Your task to perform on an android device: What's on the menu at Cheesecake Factory? Image 0: 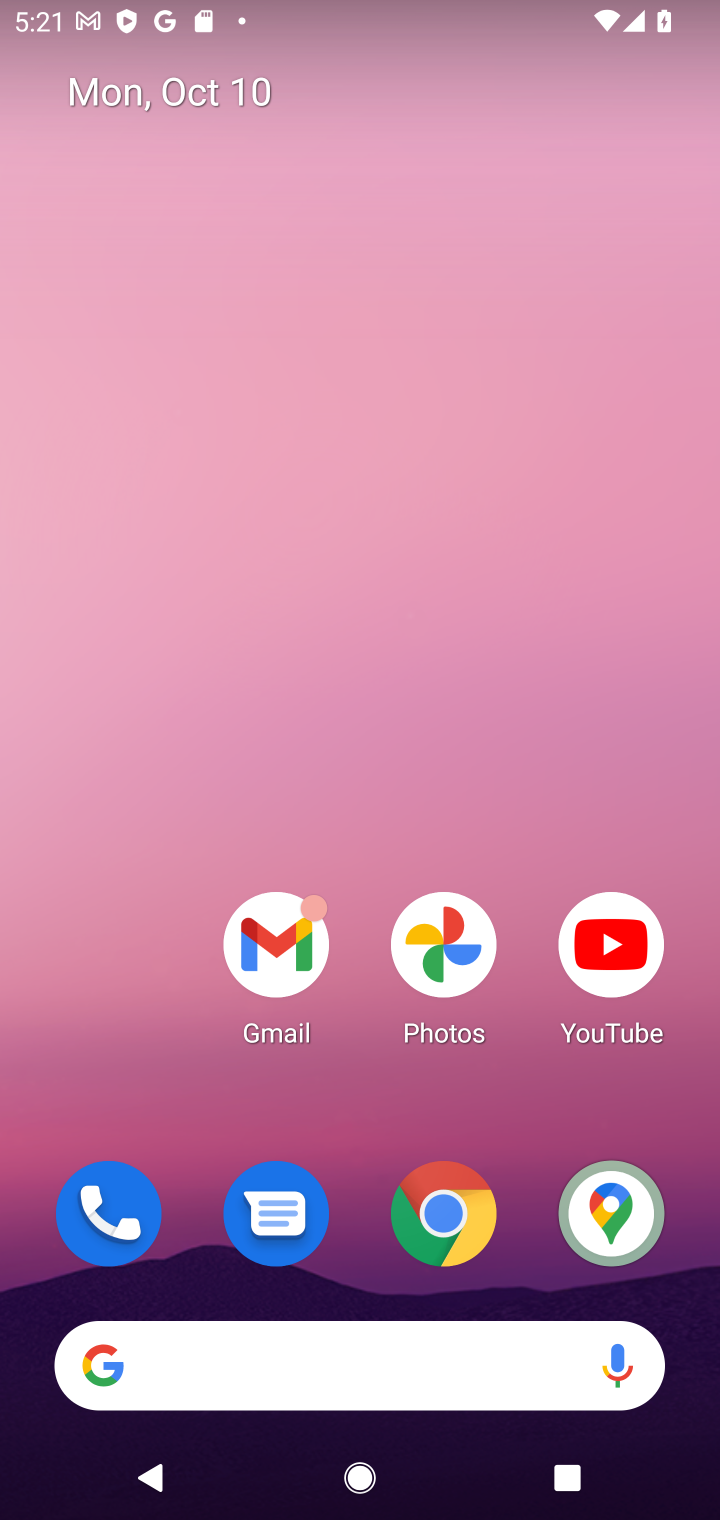
Step 0: click (340, 1373)
Your task to perform on an android device: What's on the menu at Cheesecake Factory? Image 1: 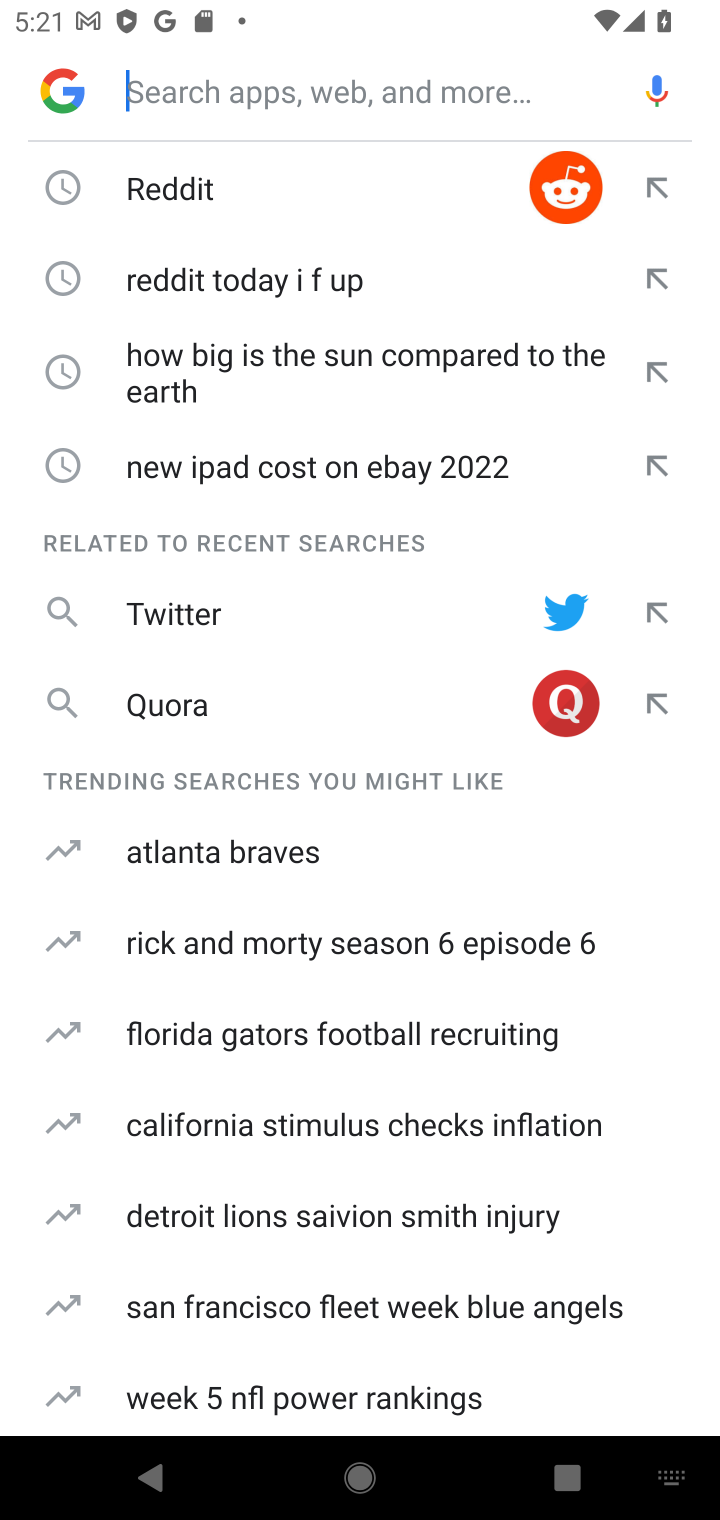
Step 1: type "menu at Cheesecake Factory"
Your task to perform on an android device: What's on the menu at Cheesecake Factory? Image 2: 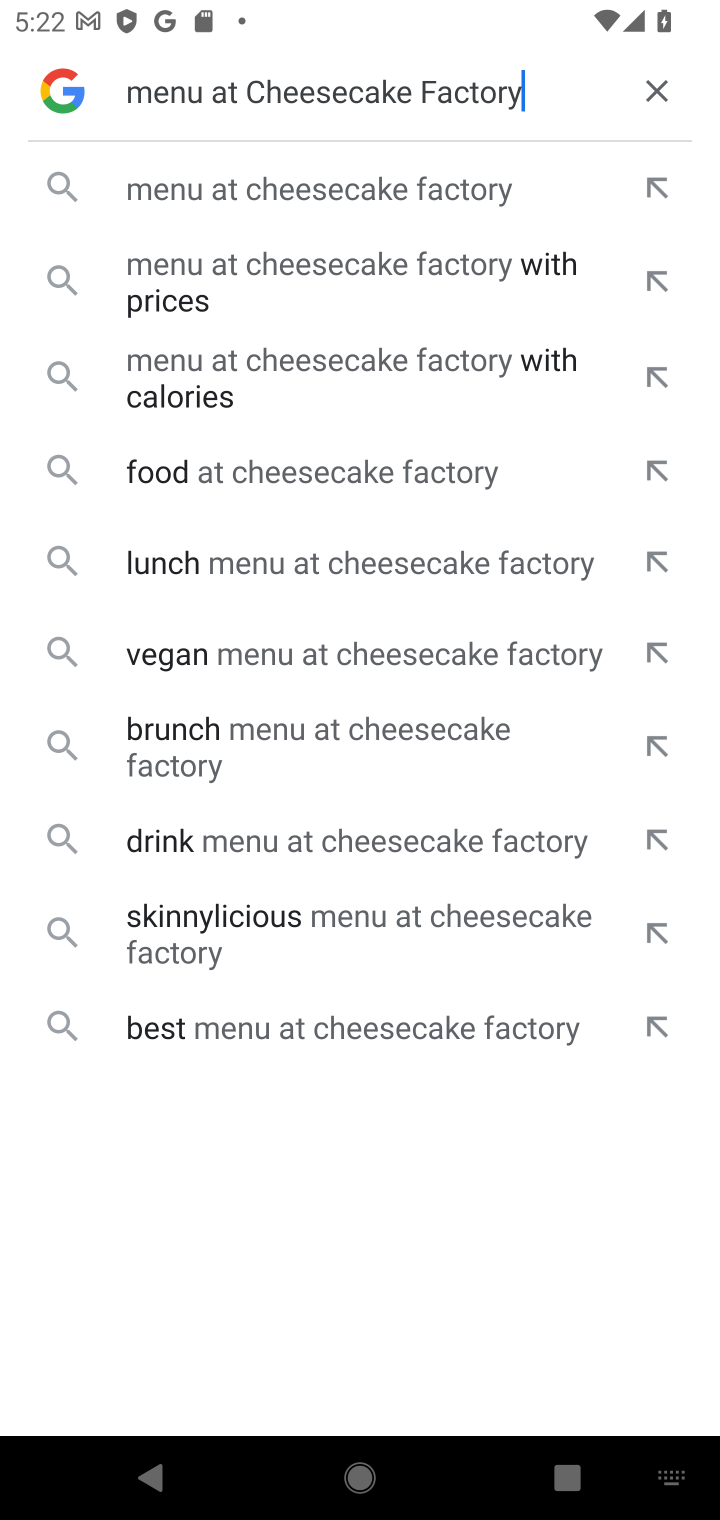
Step 2: click (484, 189)
Your task to perform on an android device: What's on the menu at Cheesecake Factory? Image 3: 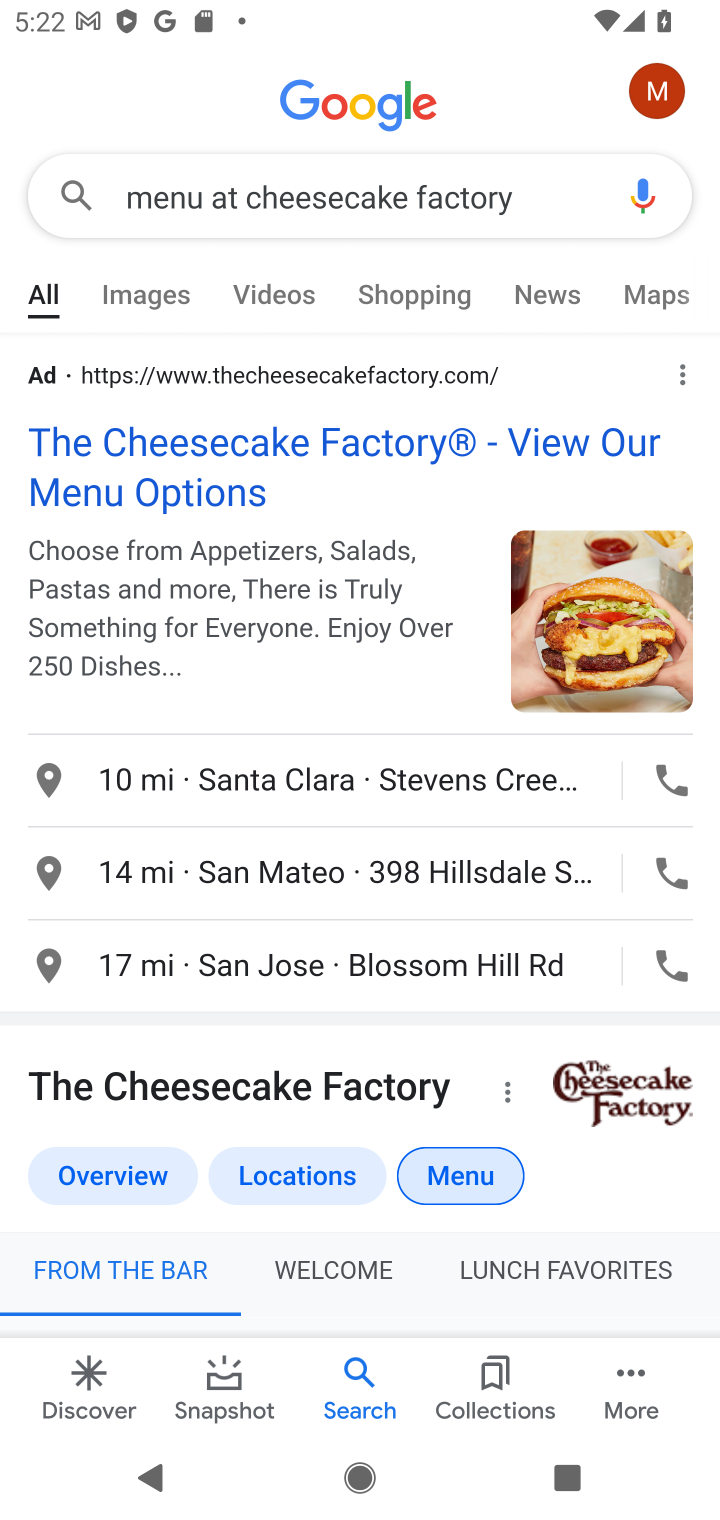
Step 3: drag from (393, 1040) to (412, 508)
Your task to perform on an android device: What's on the menu at Cheesecake Factory? Image 4: 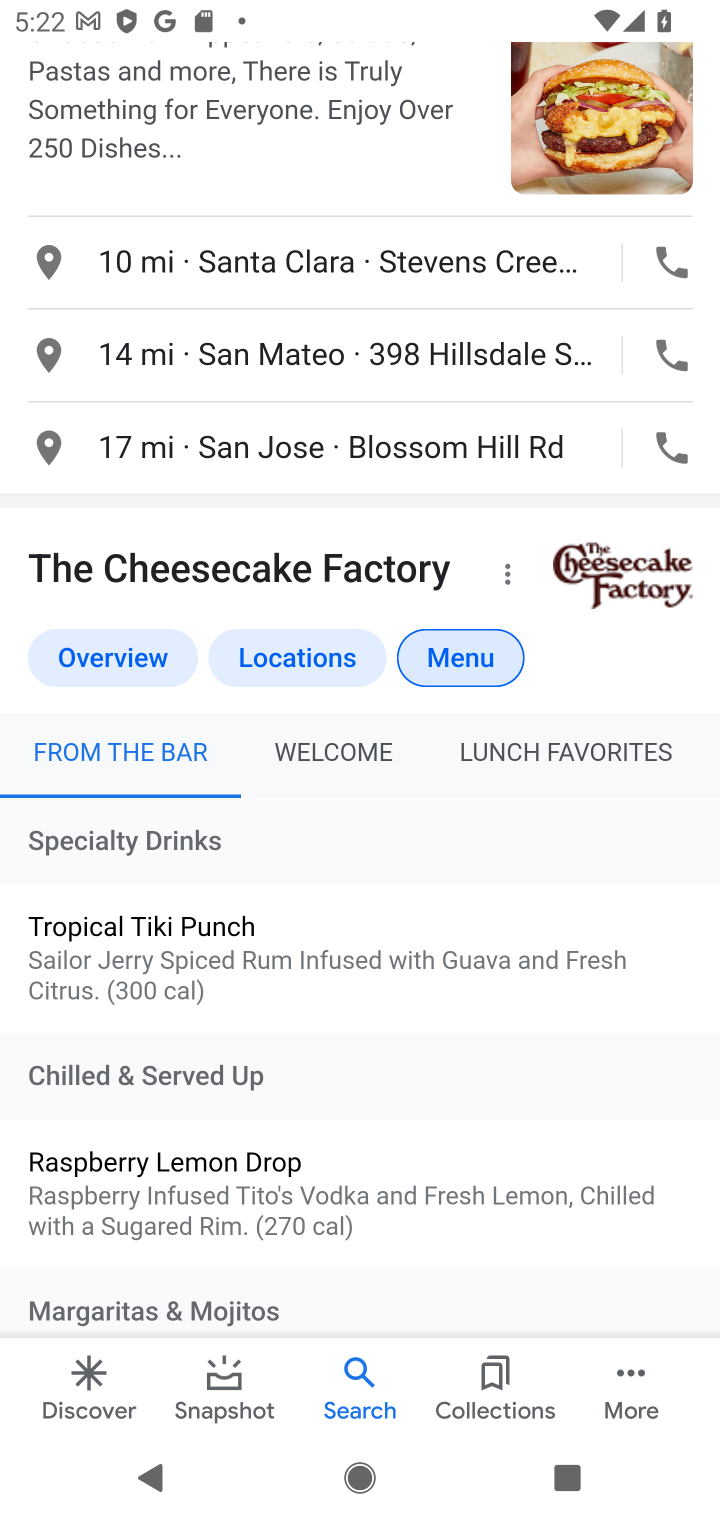
Step 4: drag from (354, 1027) to (414, 431)
Your task to perform on an android device: What's on the menu at Cheesecake Factory? Image 5: 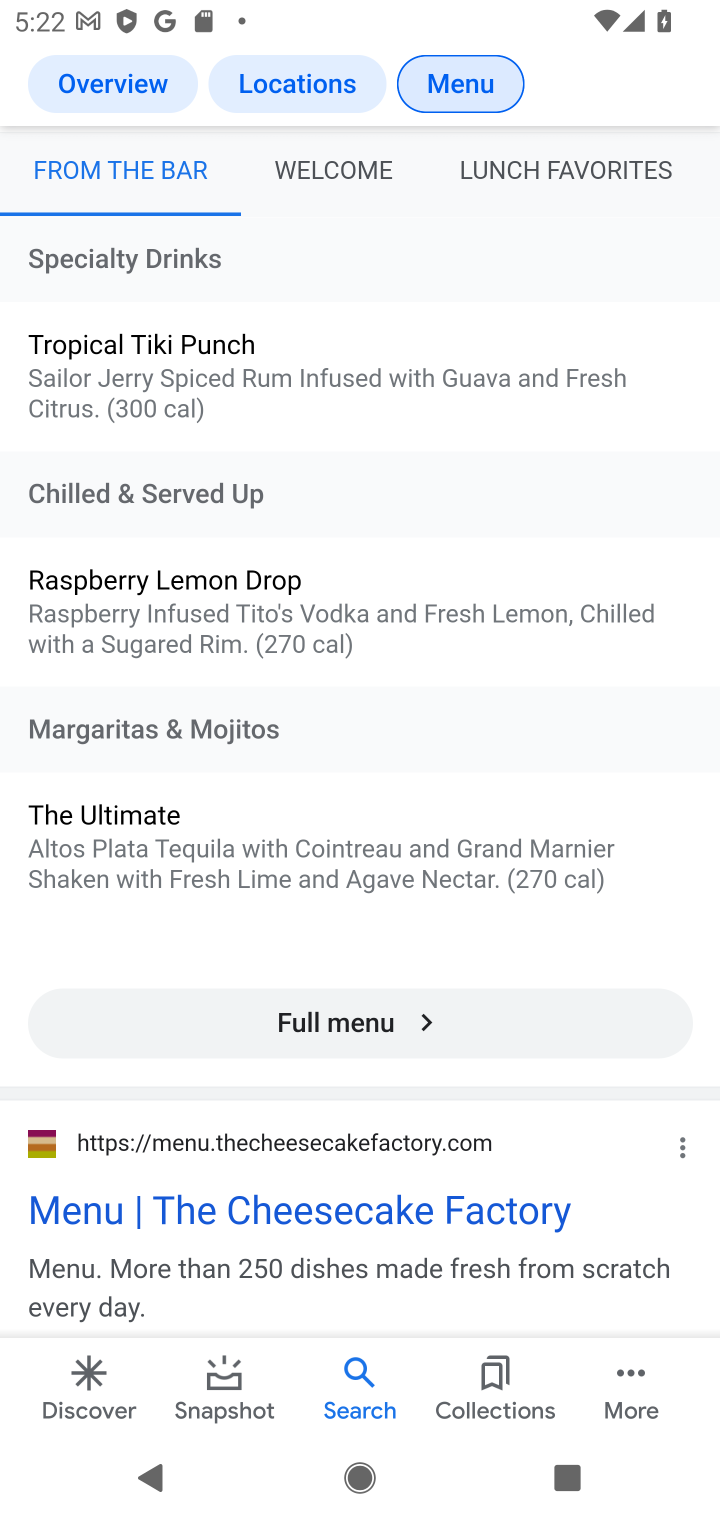
Step 5: click (457, 1206)
Your task to perform on an android device: What's on the menu at Cheesecake Factory? Image 6: 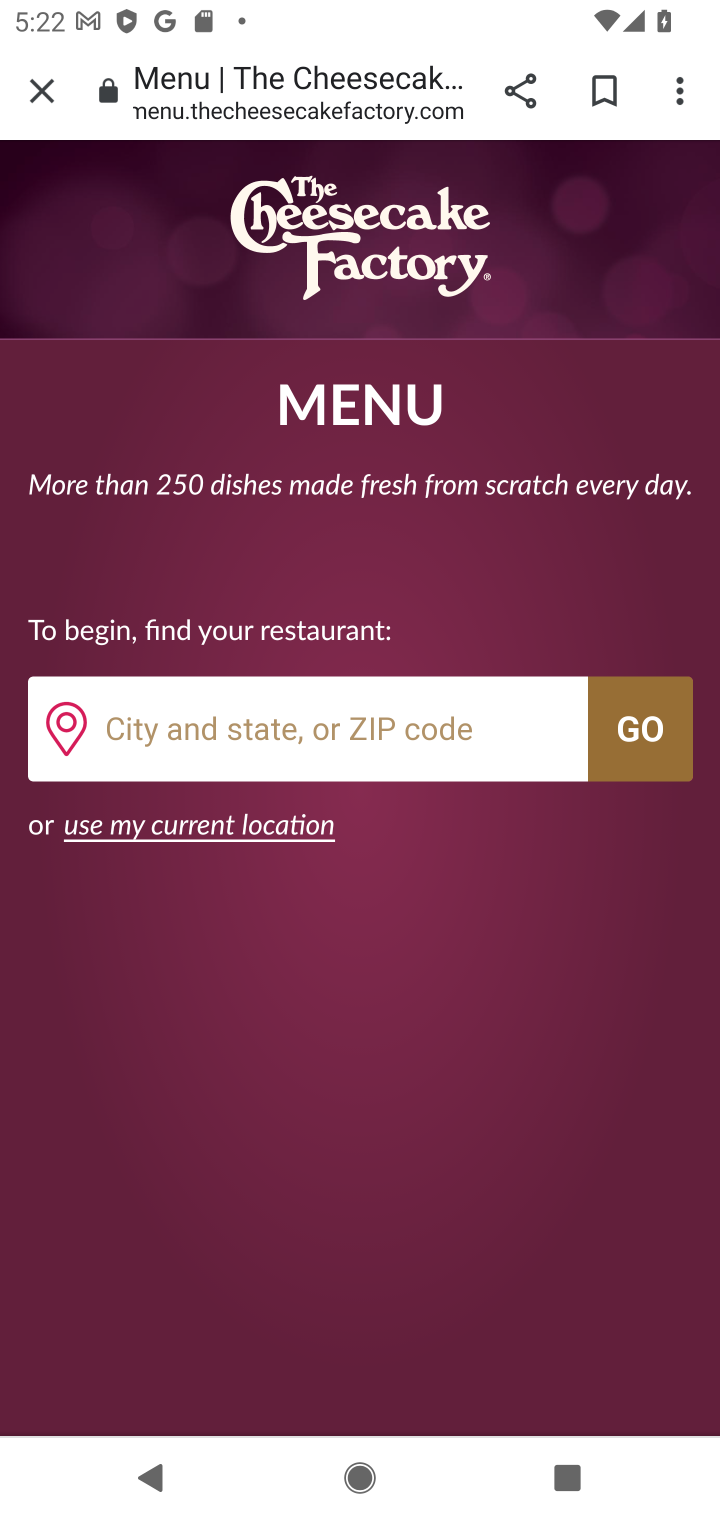
Step 6: task complete